Your task to perform on an android device: Clear the shopping cart on walmart.com. Search for "razer nari" on walmart.com, select the first entry, add it to the cart, then select checkout. Image 0: 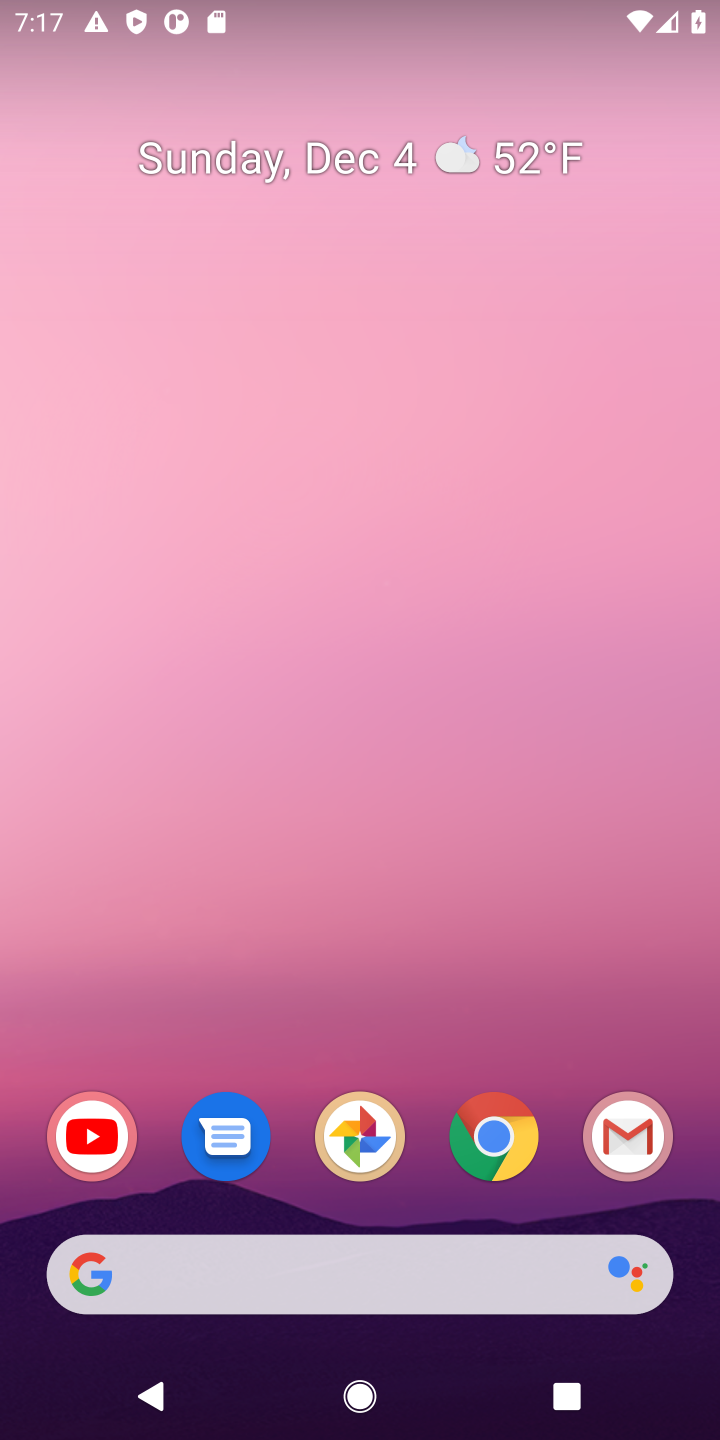
Step 0: click (488, 1146)
Your task to perform on an android device: Clear the shopping cart on walmart.com. Search for "razer nari" on walmart.com, select the first entry, add it to the cart, then select checkout. Image 1: 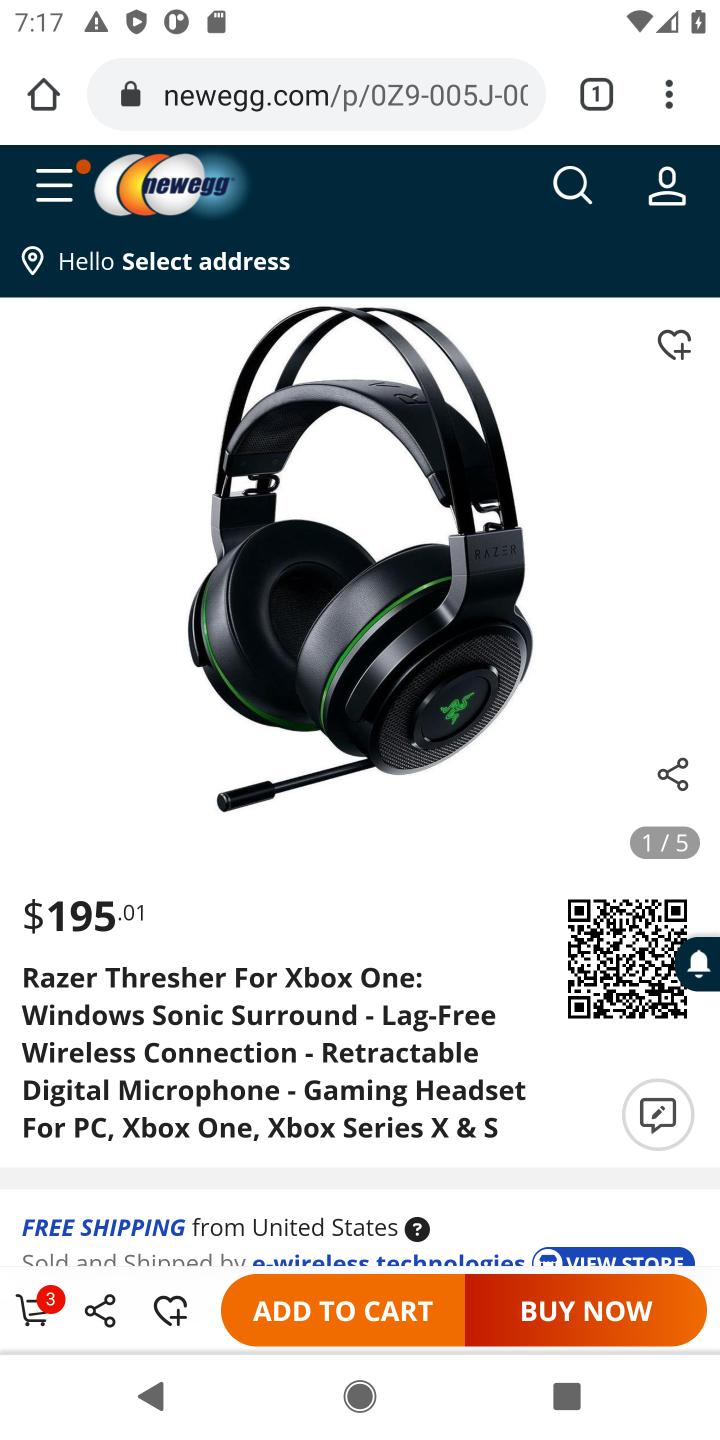
Step 1: click (300, 99)
Your task to perform on an android device: Clear the shopping cart on walmart.com. Search for "razer nari" on walmart.com, select the first entry, add it to the cart, then select checkout. Image 2: 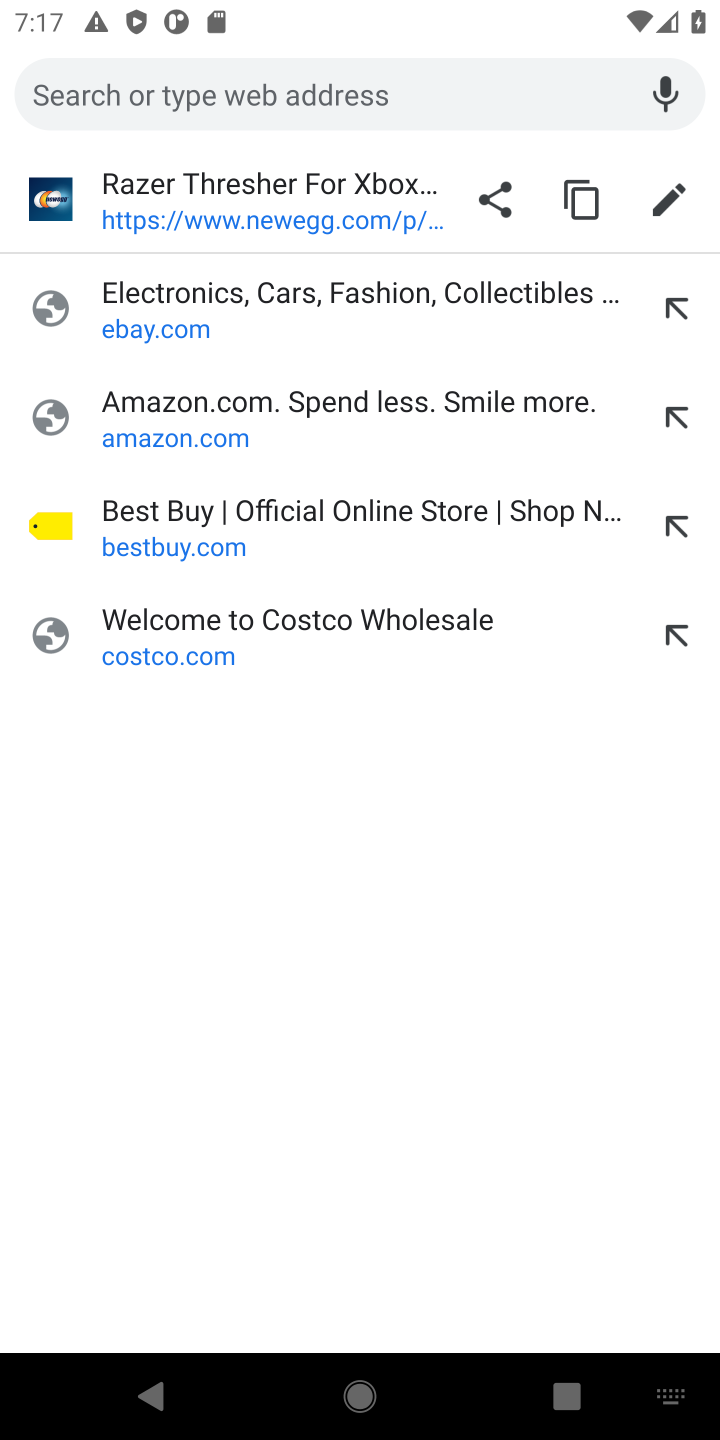
Step 2: type "walmart.com"
Your task to perform on an android device: Clear the shopping cart on walmart.com. Search for "razer nari" on walmart.com, select the first entry, add it to the cart, then select checkout. Image 3: 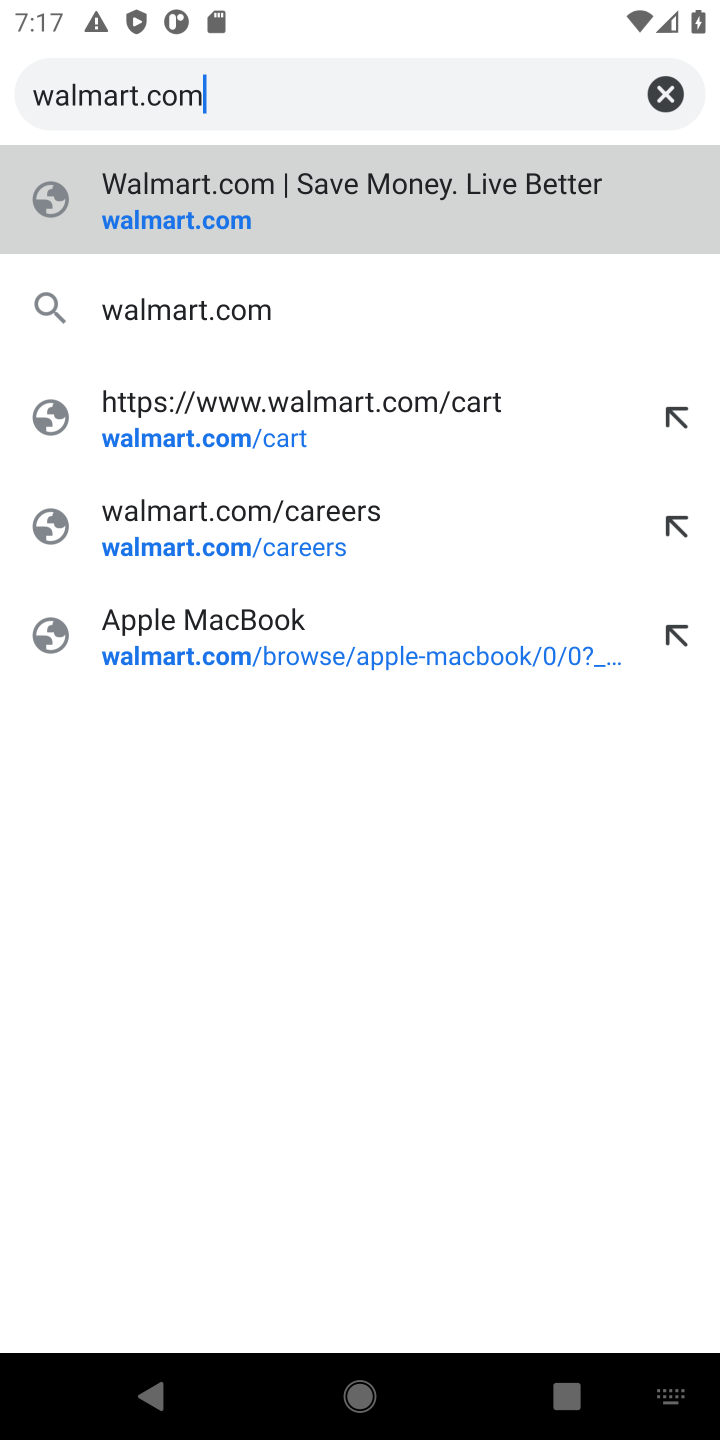
Step 3: click (169, 224)
Your task to perform on an android device: Clear the shopping cart on walmart.com. Search for "razer nari" on walmart.com, select the first entry, add it to the cart, then select checkout. Image 4: 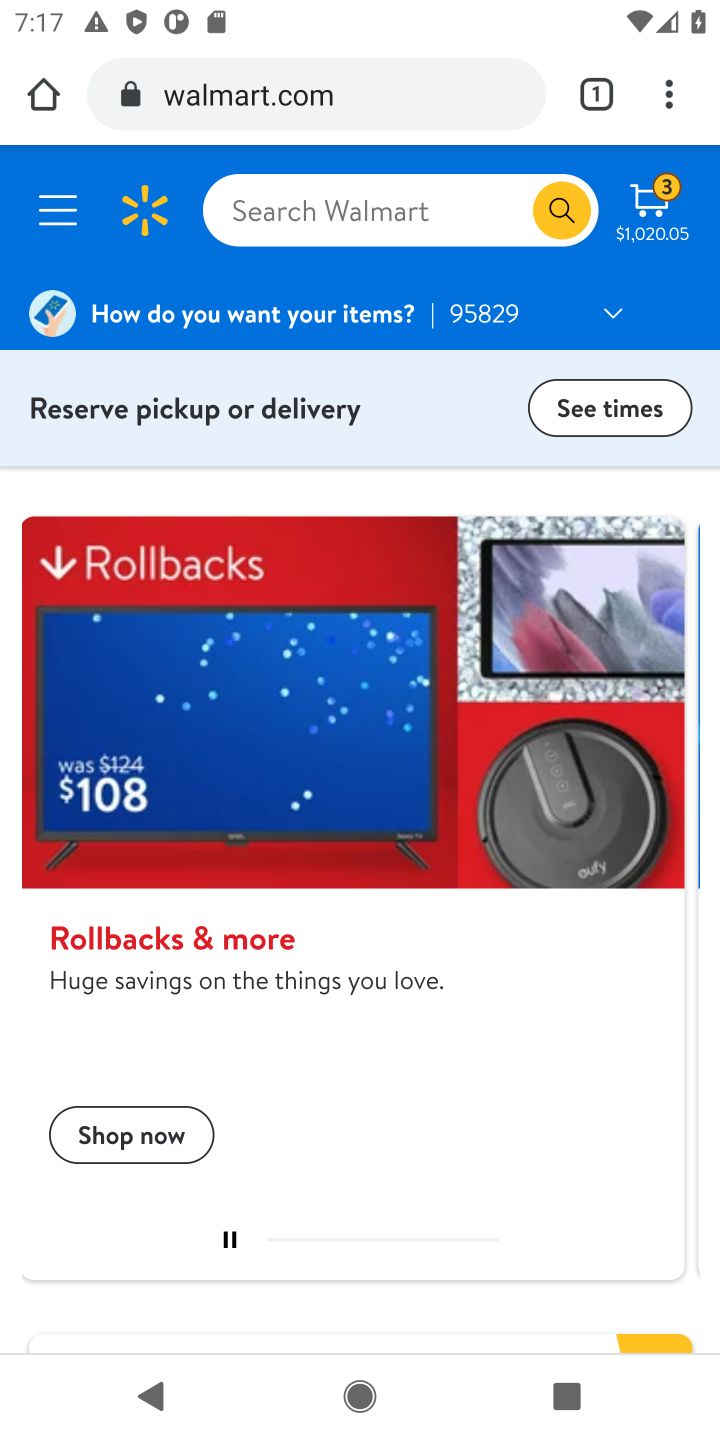
Step 4: click (662, 212)
Your task to perform on an android device: Clear the shopping cart on walmart.com. Search for "razer nari" on walmart.com, select the first entry, add it to the cart, then select checkout. Image 5: 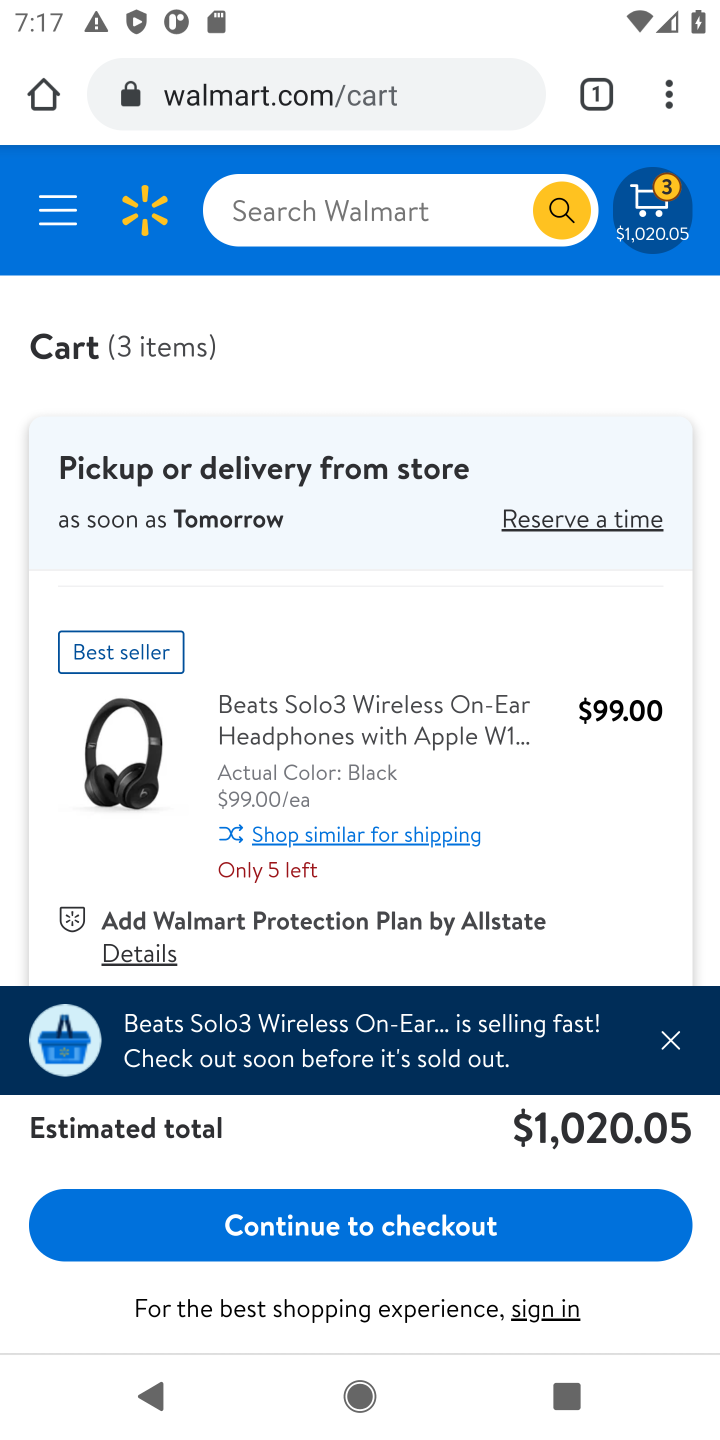
Step 5: click (671, 1037)
Your task to perform on an android device: Clear the shopping cart on walmart.com. Search for "razer nari" on walmart.com, select the first entry, add it to the cart, then select checkout. Image 6: 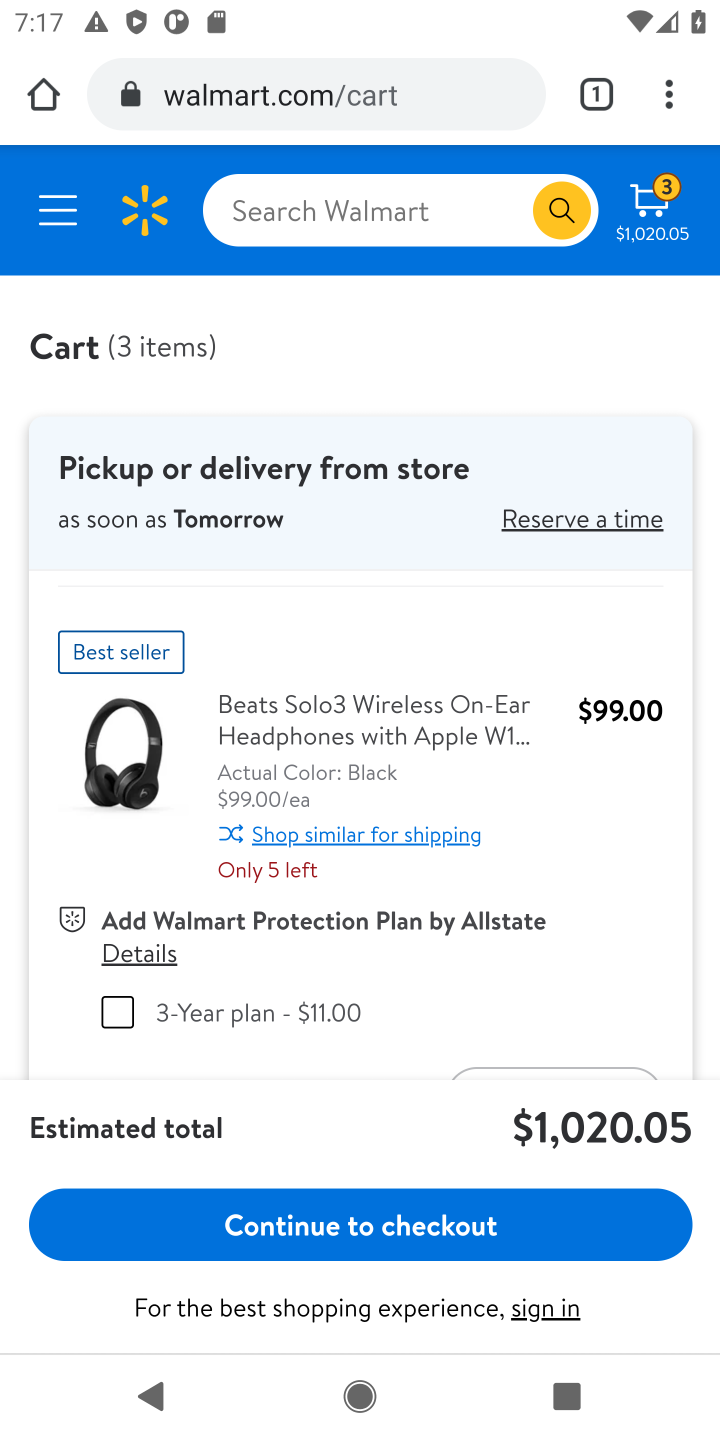
Step 6: drag from (297, 1011) to (287, 553)
Your task to perform on an android device: Clear the shopping cart on walmart.com. Search for "razer nari" on walmart.com, select the first entry, add it to the cart, then select checkout. Image 7: 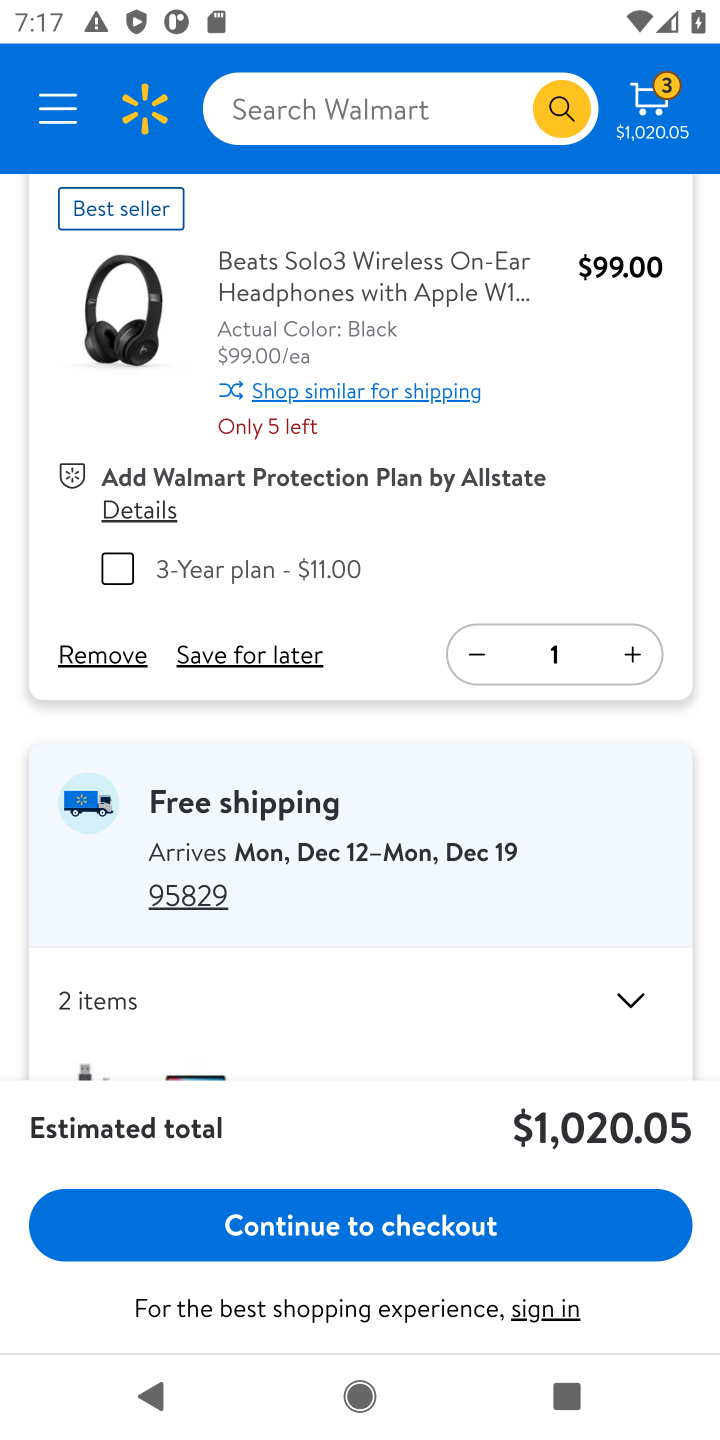
Step 7: click (84, 655)
Your task to perform on an android device: Clear the shopping cart on walmart.com. Search for "razer nari" on walmart.com, select the first entry, add it to the cart, then select checkout. Image 8: 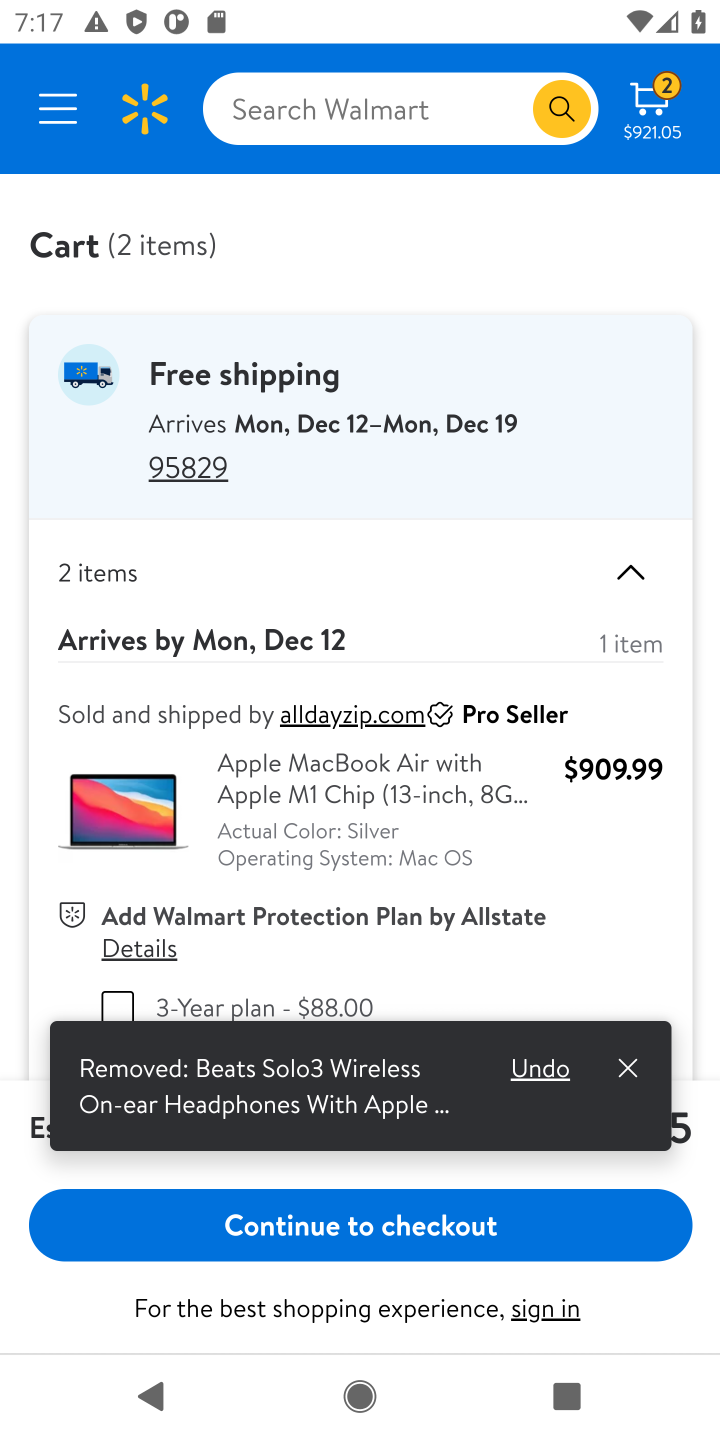
Step 8: drag from (299, 792) to (316, 469)
Your task to perform on an android device: Clear the shopping cart on walmart.com. Search for "razer nari" on walmart.com, select the first entry, add it to the cart, then select checkout. Image 9: 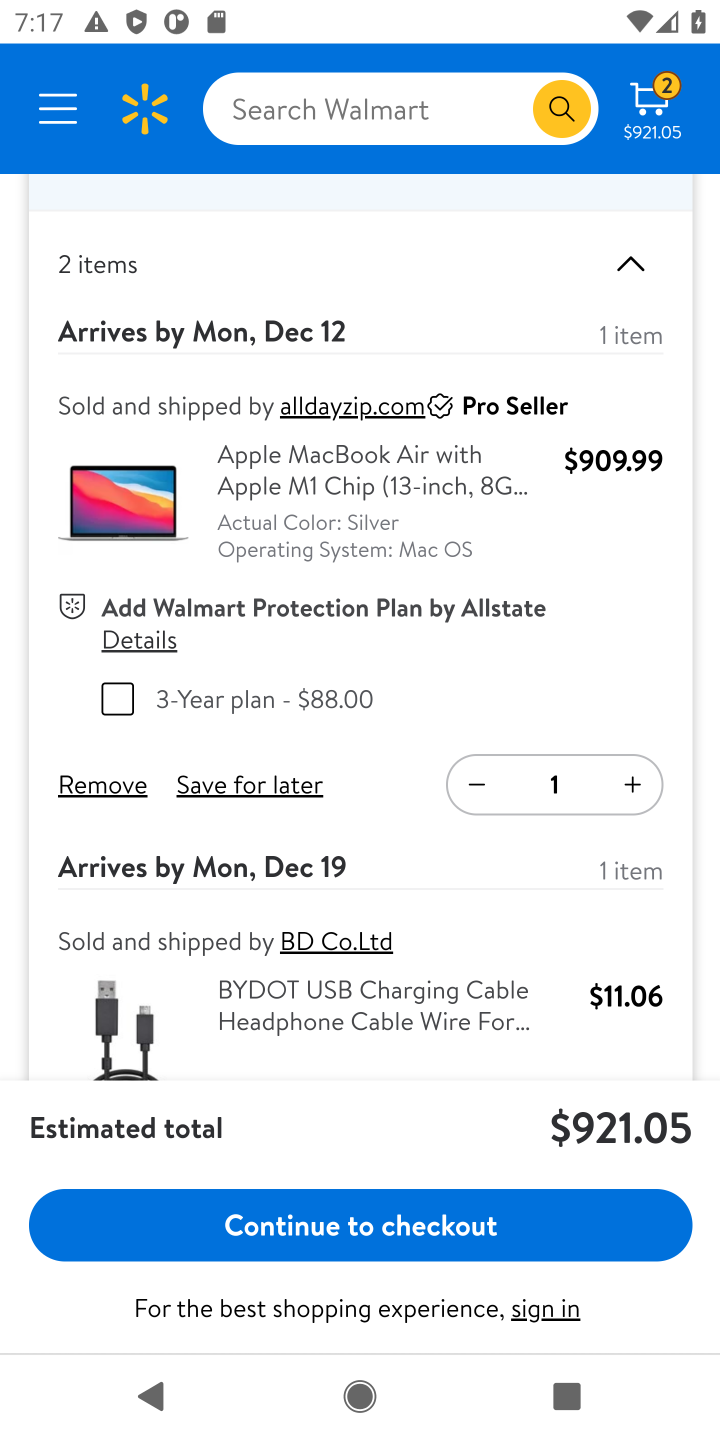
Step 9: click (86, 790)
Your task to perform on an android device: Clear the shopping cart on walmart.com. Search for "razer nari" on walmart.com, select the first entry, add it to the cart, then select checkout. Image 10: 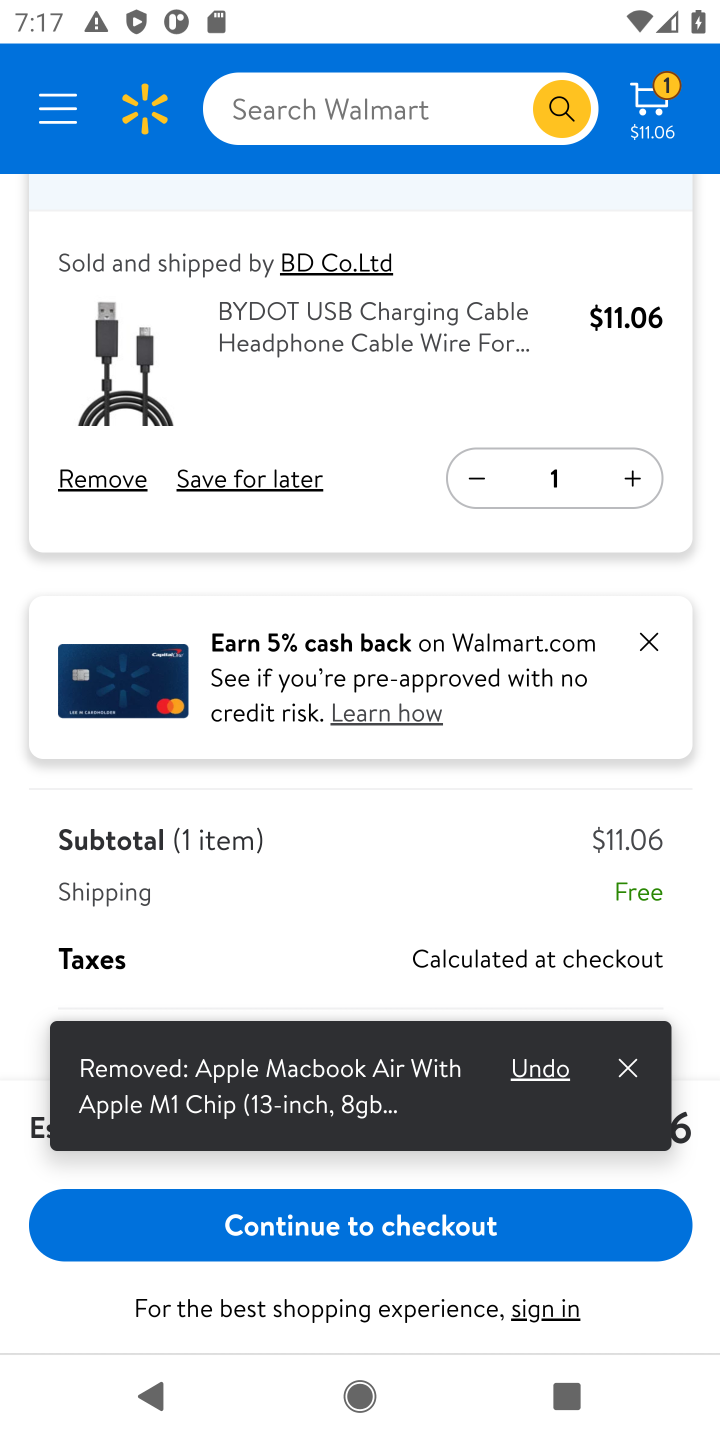
Step 10: click (83, 485)
Your task to perform on an android device: Clear the shopping cart on walmart.com. Search for "razer nari" on walmart.com, select the first entry, add it to the cart, then select checkout. Image 11: 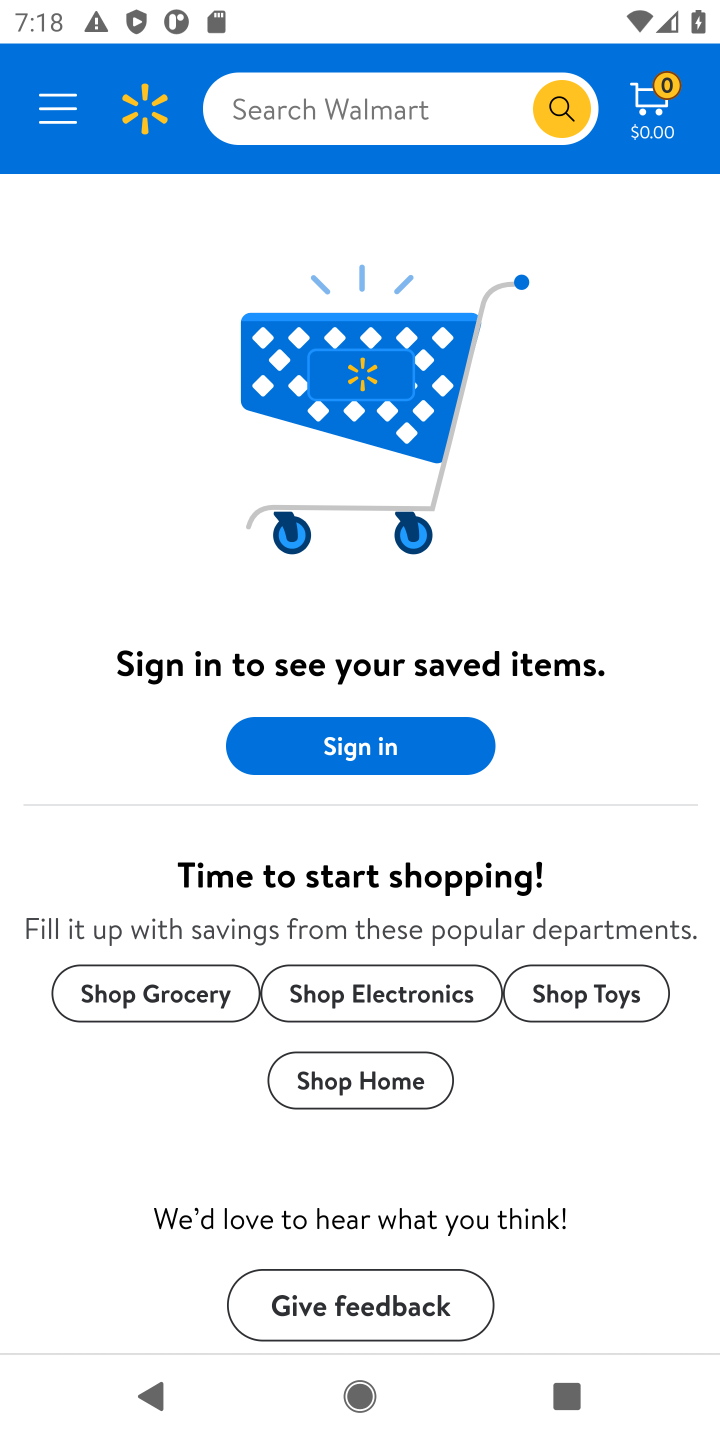
Step 11: click (280, 103)
Your task to perform on an android device: Clear the shopping cart on walmart.com. Search for "razer nari" on walmart.com, select the first entry, add it to the cart, then select checkout. Image 12: 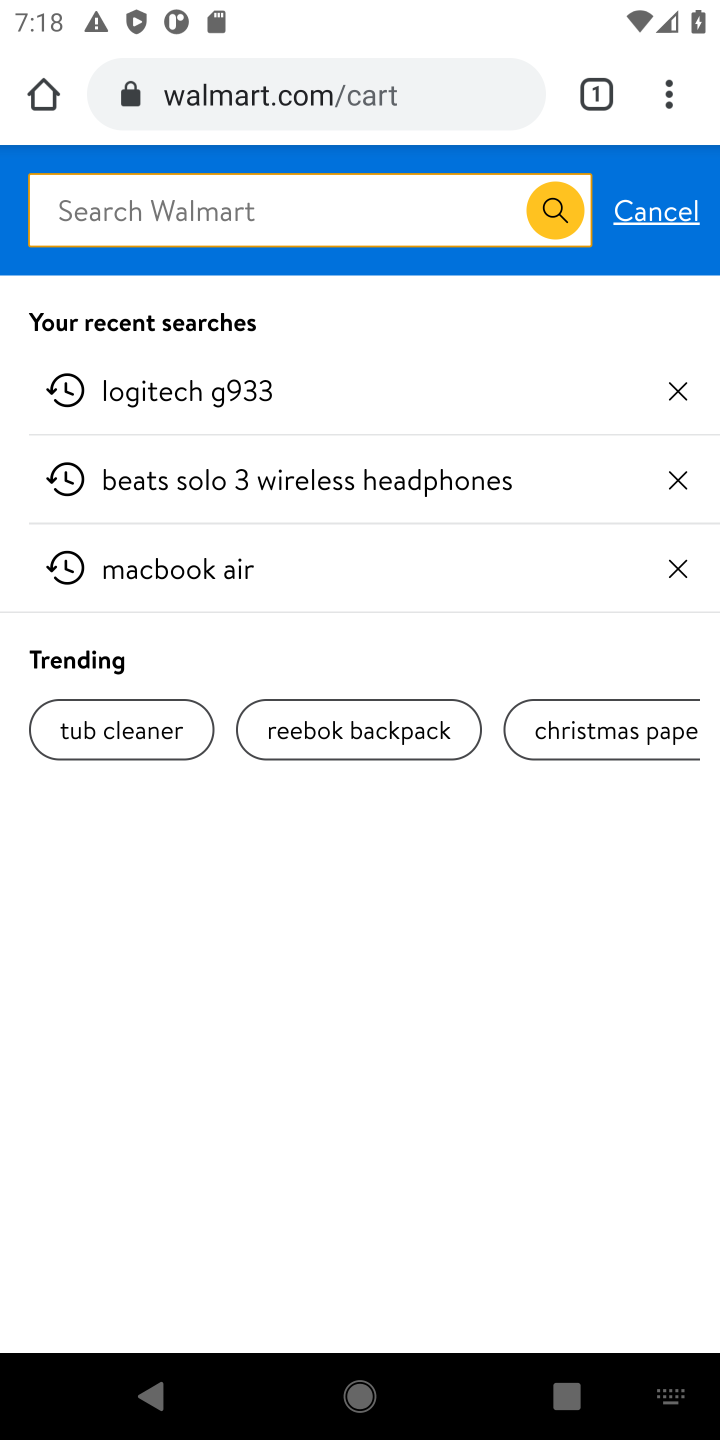
Step 12: type "razer nari"
Your task to perform on an android device: Clear the shopping cart on walmart.com. Search for "razer nari" on walmart.com, select the first entry, add it to the cart, then select checkout. Image 13: 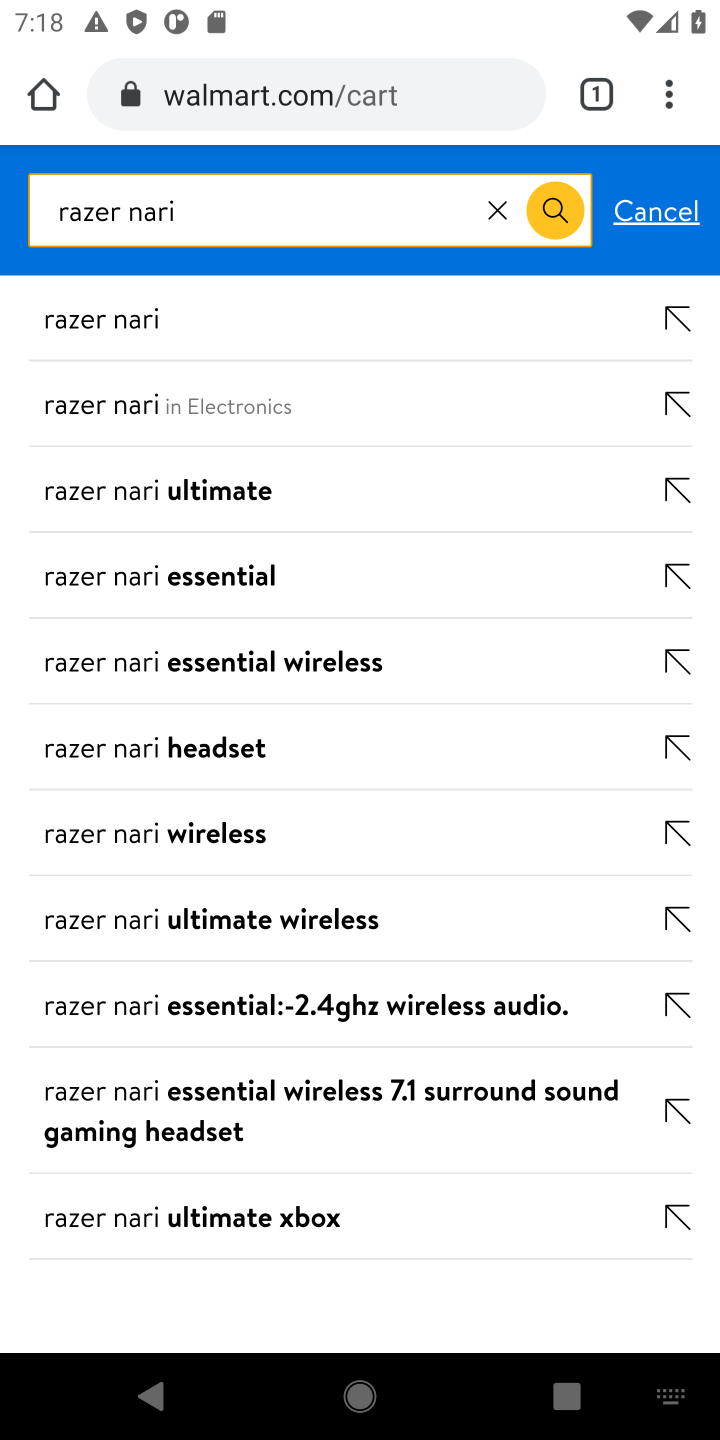
Step 13: click (79, 322)
Your task to perform on an android device: Clear the shopping cart on walmart.com. Search for "razer nari" on walmart.com, select the first entry, add it to the cart, then select checkout. Image 14: 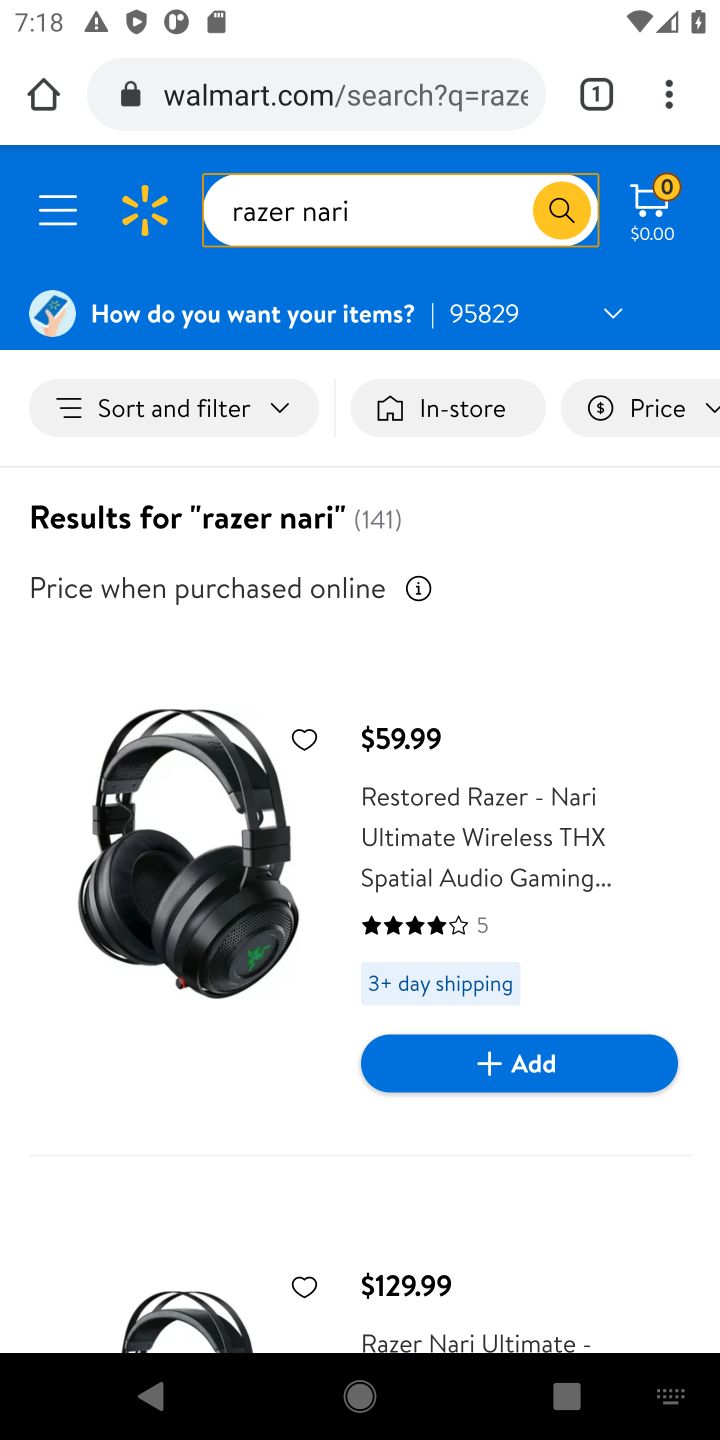
Step 14: click (508, 1071)
Your task to perform on an android device: Clear the shopping cart on walmart.com. Search for "razer nari" on walmart.com, select the first entry, add it to the cart, then select checkout. Image 15: 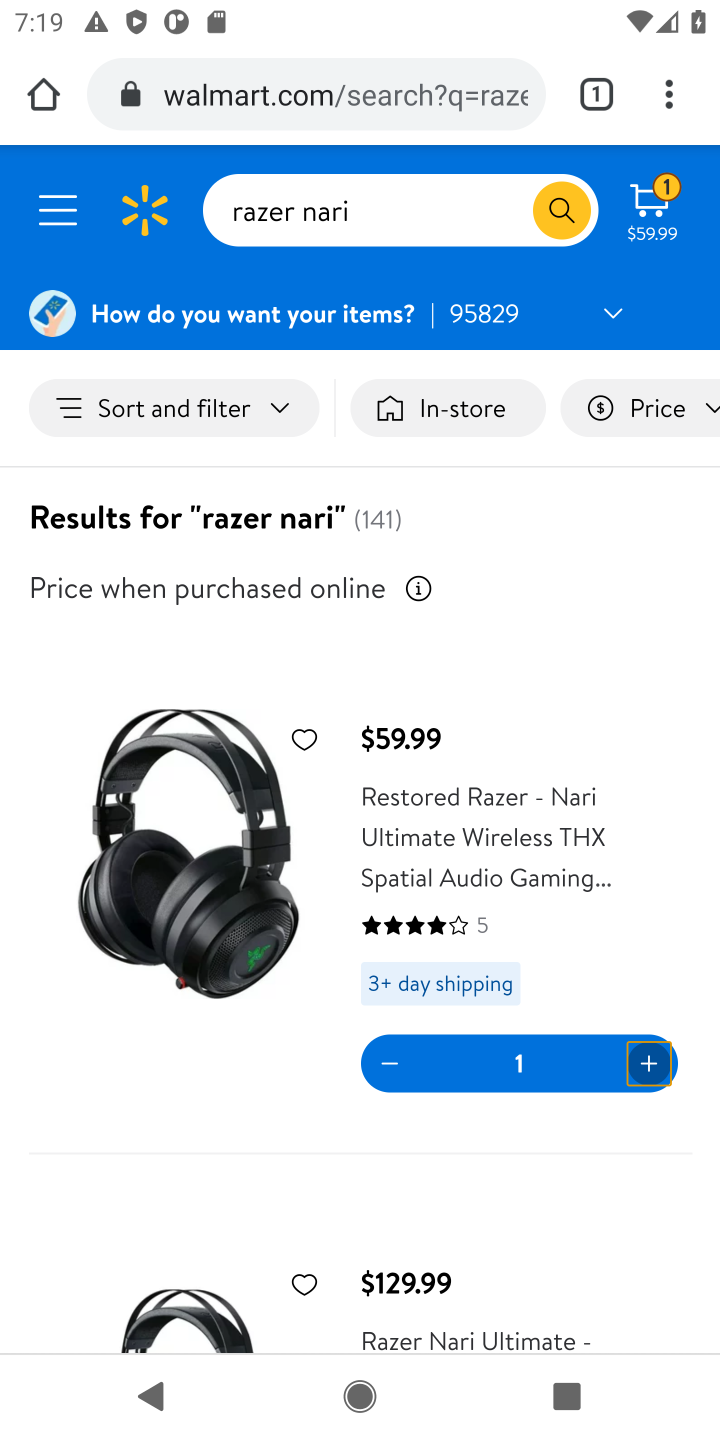
Step 15: click (659, 201)
Your task to perform on an android device: Clear the shopping cart on walmart.com. Search for "razer nari" on walmart.com, select the first entry, add it to the cart, then select checkout. Image 16: 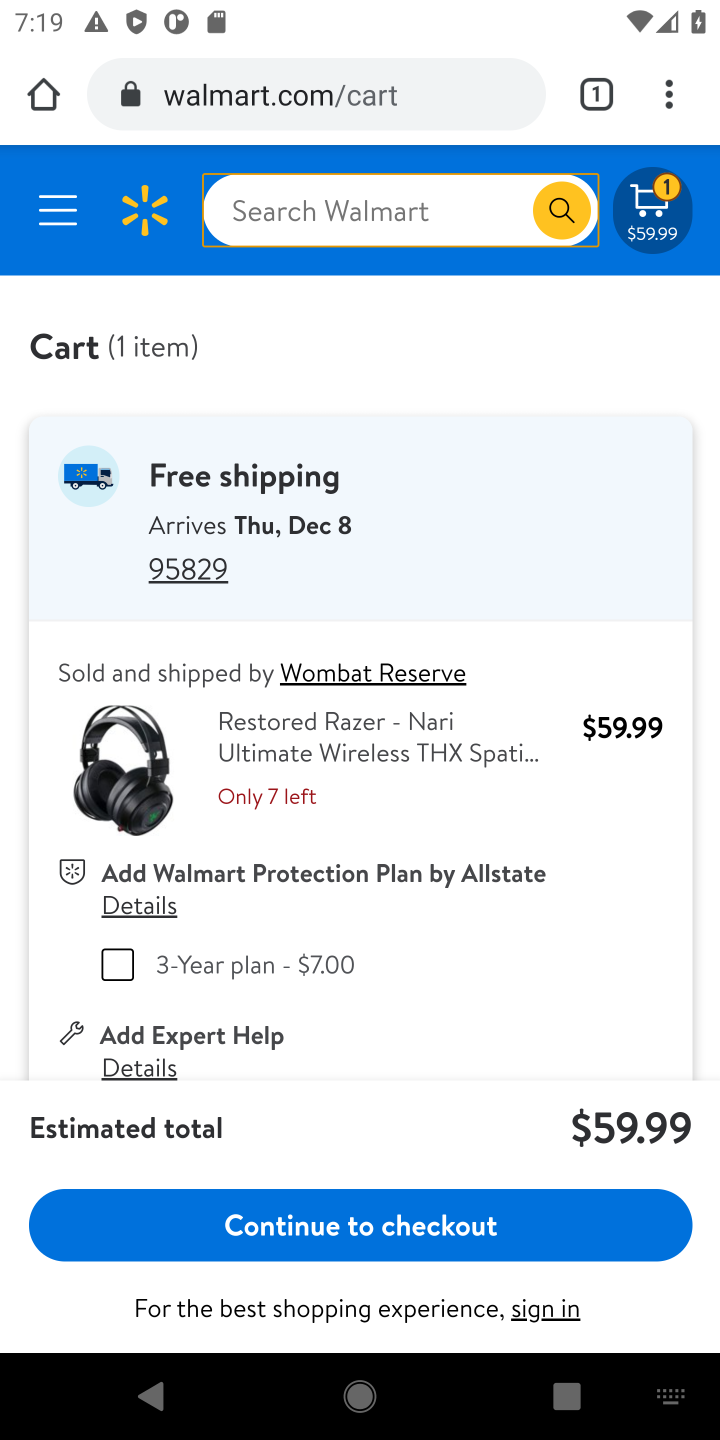
Step 16: click (363, 1218)
Your task to perform on an android device: Clear the shopping cart on walmart.com. Search for "razer nari" on walmart.com, select the first entry, add it to the cart, then select checkout. Image 17: 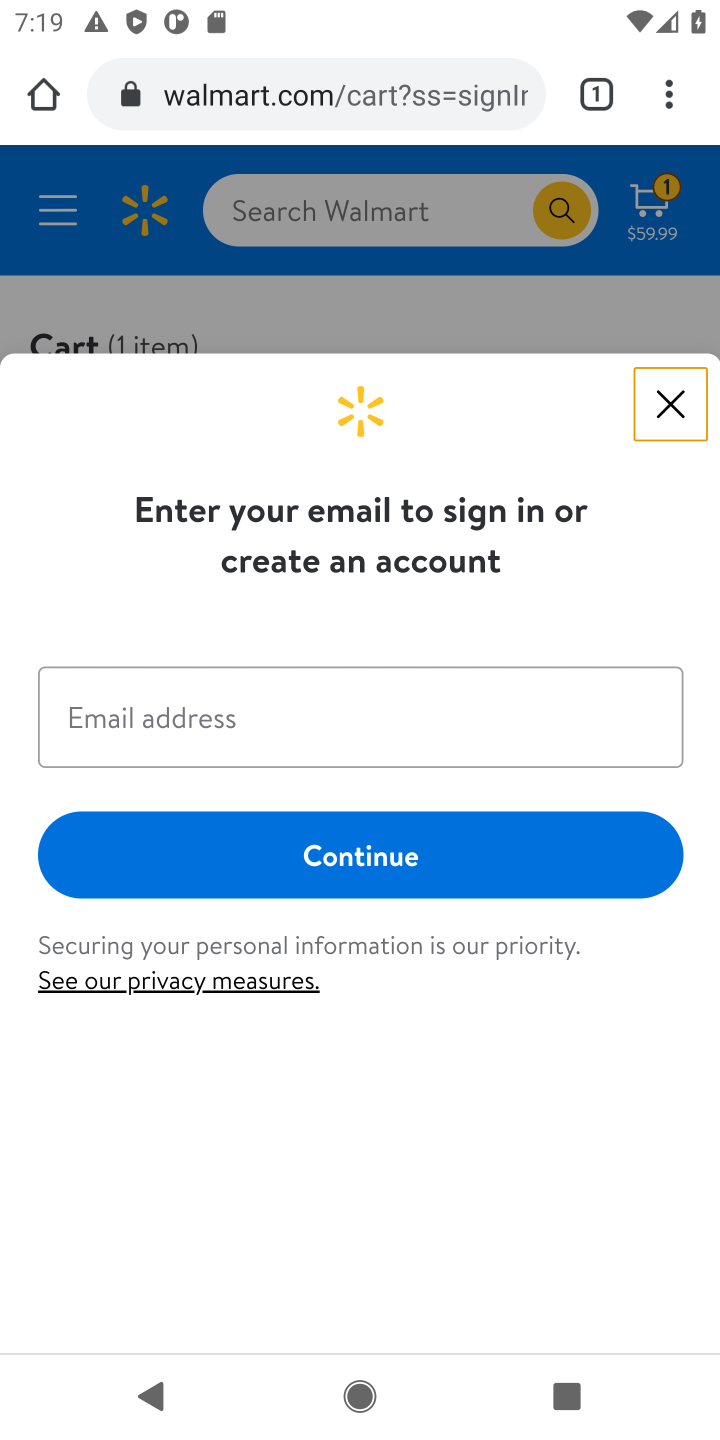
Step 17: task complete